Your task to perform on an android device: turn off location history Image 0: 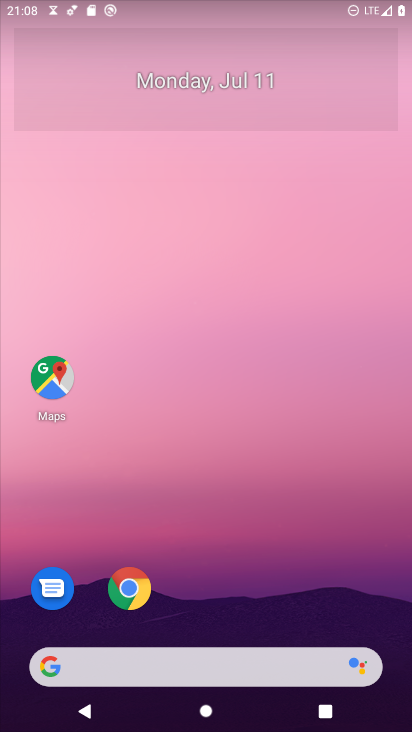
Step 0: press home button
Your task to perform on an android device: turn off location history Image 1: 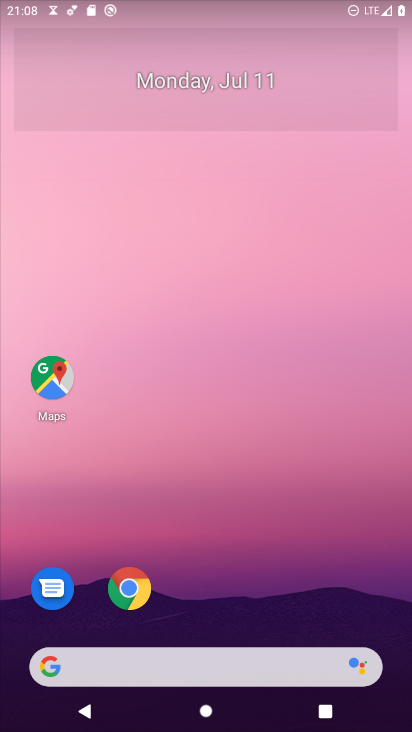
Step 1: drag from (228, 632) to (256, 116)
Your task to perform on an android device: turn off location history Image 2: 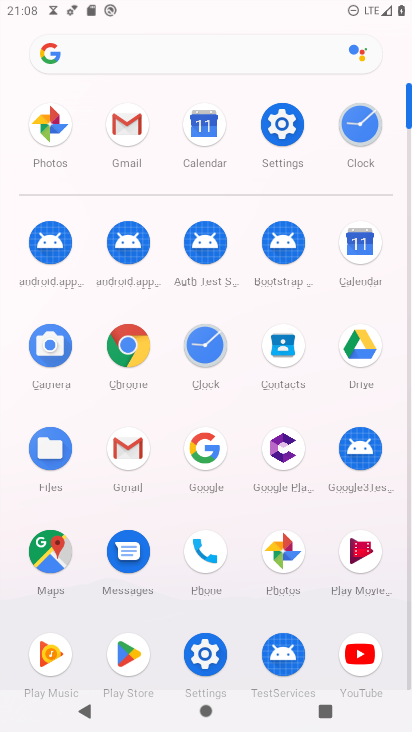
Step 2: click (209, 654)
Your task to perform on an android device: turn off location history Image 3: 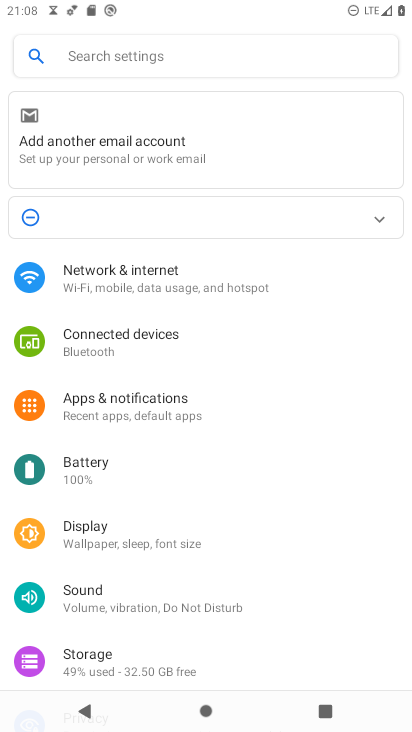
Step 3: drag from (311, 616) to (328, 276)
Your task to perform on an android device: turn off location history Image 4: 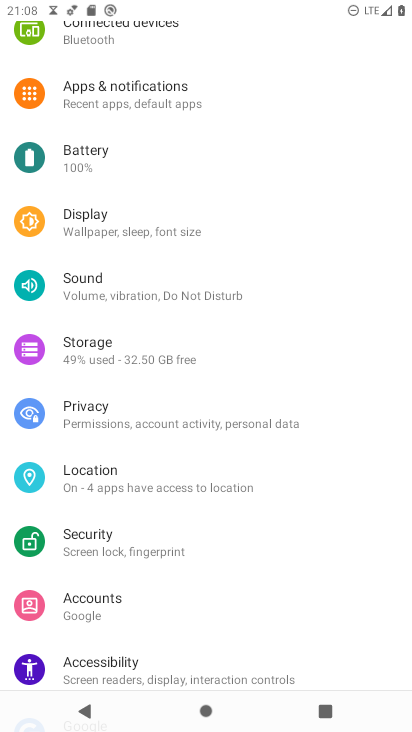
Step 4: click (112, 478)
Your task to perform on an android device: turn off location history Image 5: 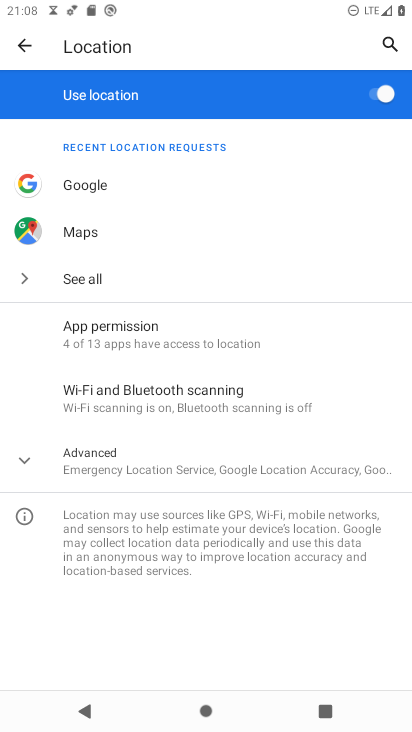
Step 5: click (112, 478)
Your task to perform on an android device: turn off location history Image 6: 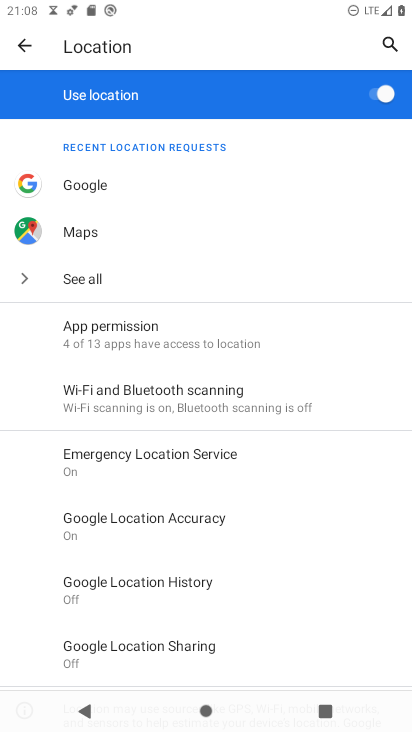
Step 6: click (165, 583)
Your task to perform on an android device: turn off location history Image 7: 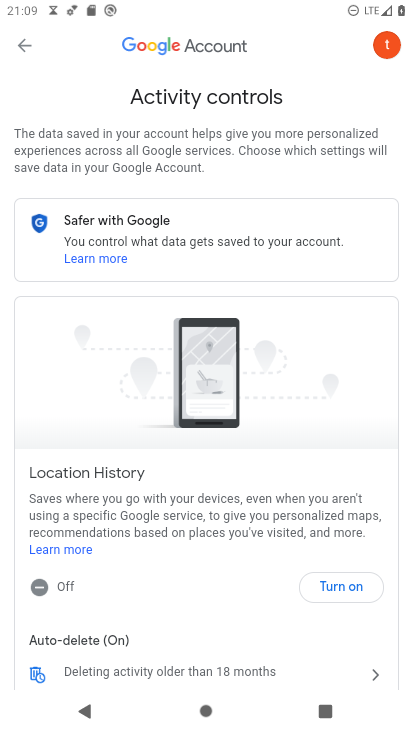
Step 7: task complete